Your task to perform on an android device: turn off notifications settings in the gmail app Image 0: 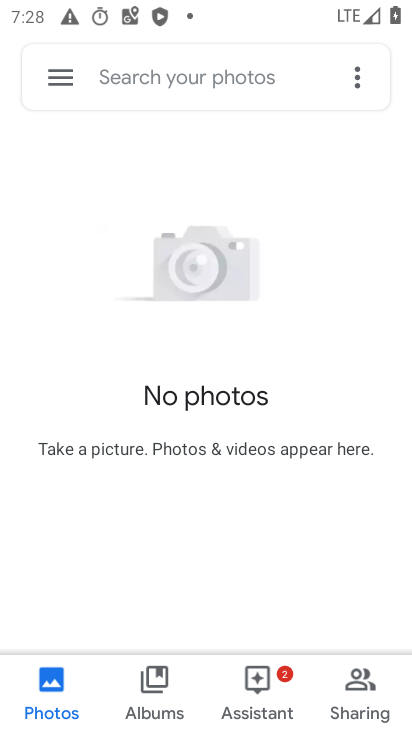
Step 0: press home button
Your task to perform on an android device: turn off notifications settings in the gmail app Image 1: 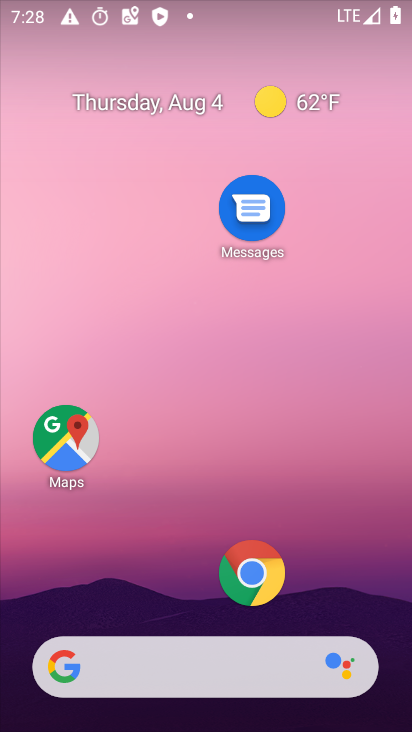
Step 1: drag from (158, 606) to (197, 124)
Your task to perform on an android device: turn off notifications settings in the gmail app Image 2: 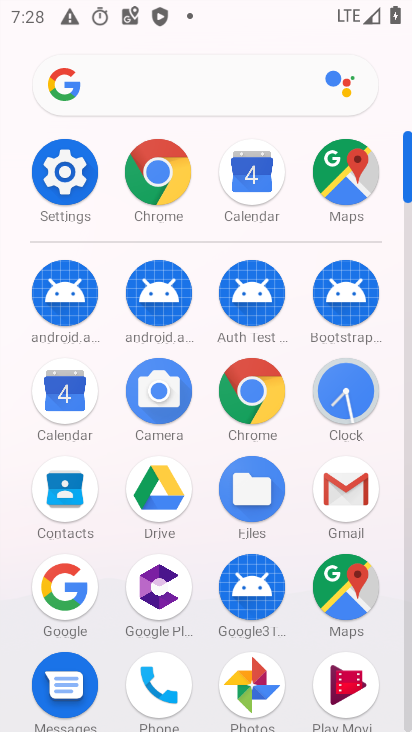
Step 2: click (351, 496)
Your task to perform on an android device: turn off notifications settings in the gmail app Image 3: 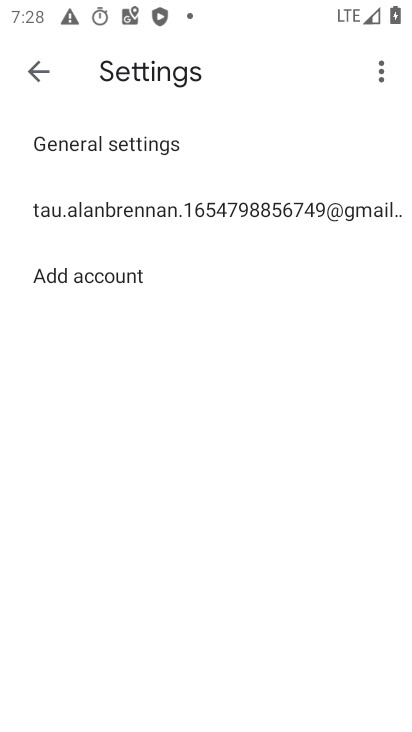
Step 3: click (166, 209)
Your task to perform on an android device: turn off notifications settings in the gmail app Image 4: 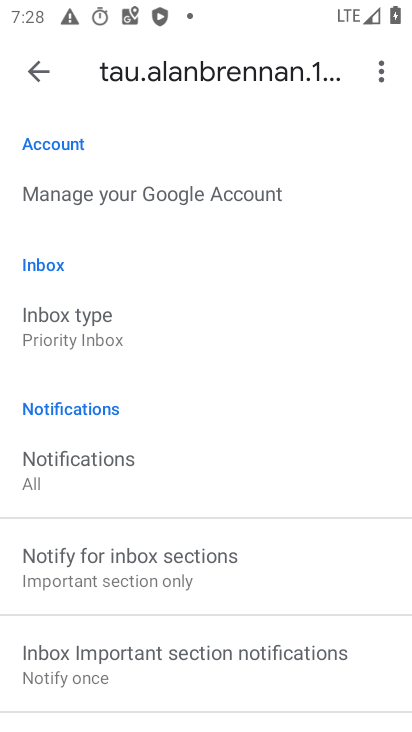
Step 4: drag from (356, 599) to (347, 298)
Your task to perform on an android device: turn off notifications settings in the gmail app Image 5: 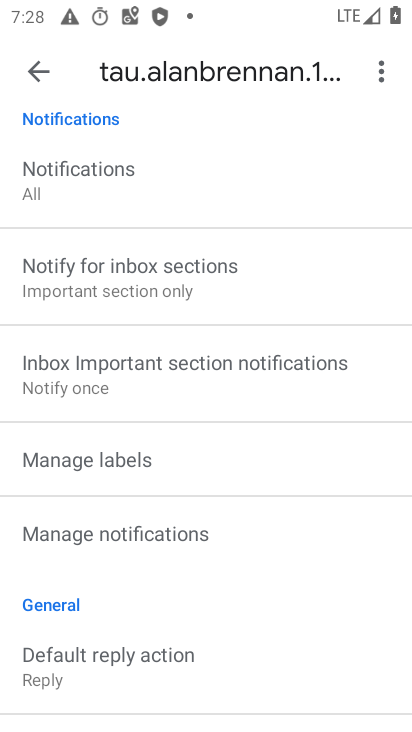
Step 5: click (121, 536)
Your task to perform on an android device: turn off notifications settings in the gmail app Image 6: 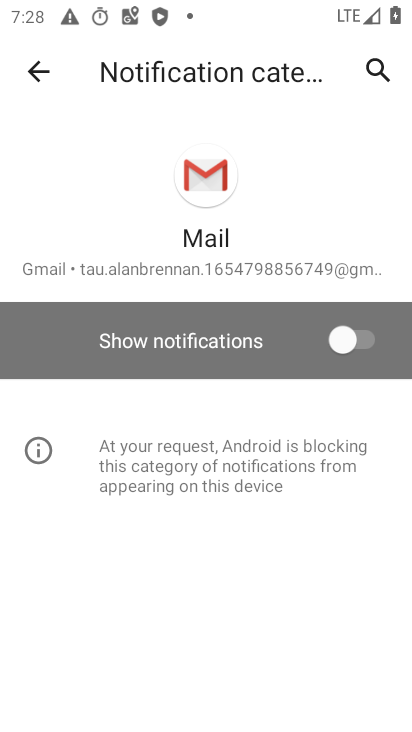
Step 6: task complete